Your task to perform on an android device: turn off location Image 0: 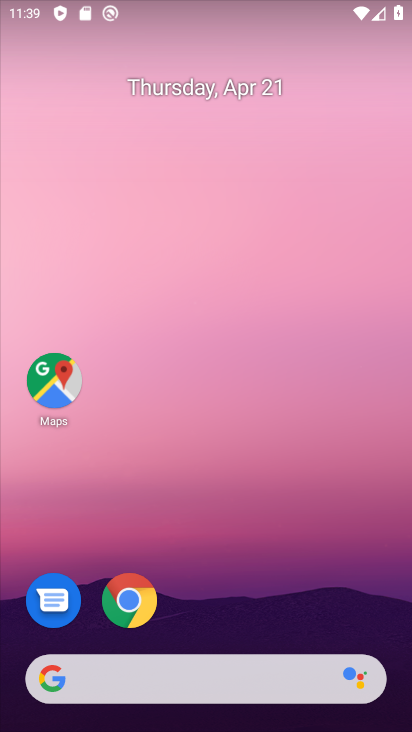
Step 0: drag from (190, 617) to (276, 32)
Your task to perform on an android device: turn off location Image 1: 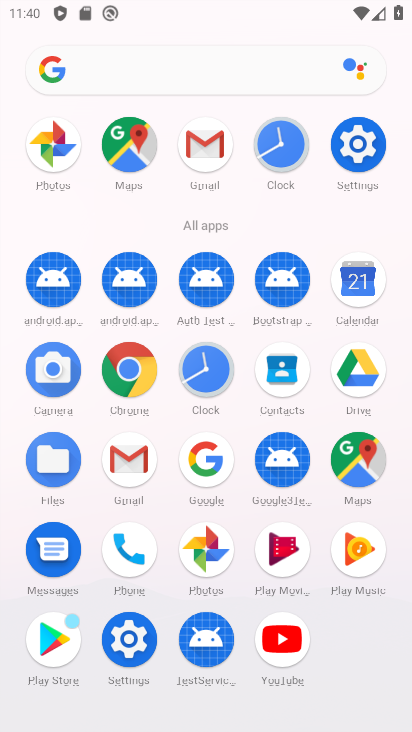
Step 1: click (134, 647)
Your task to perform on an android device: turn off location Image 2: 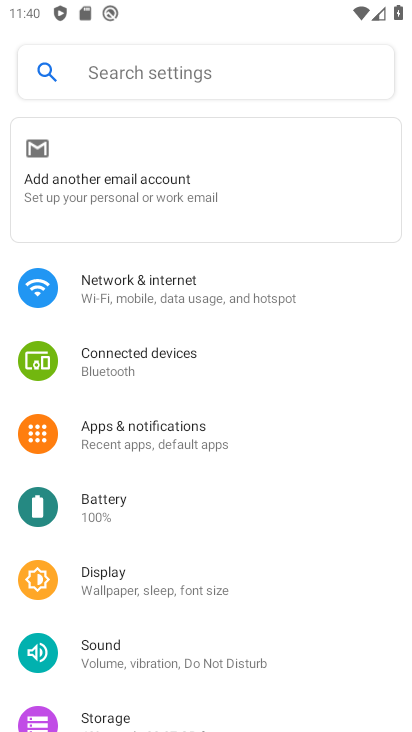
Step 2: drag from (183, 587) to (252, 182)
Your task to perform on an android device: turn off location Image 3: 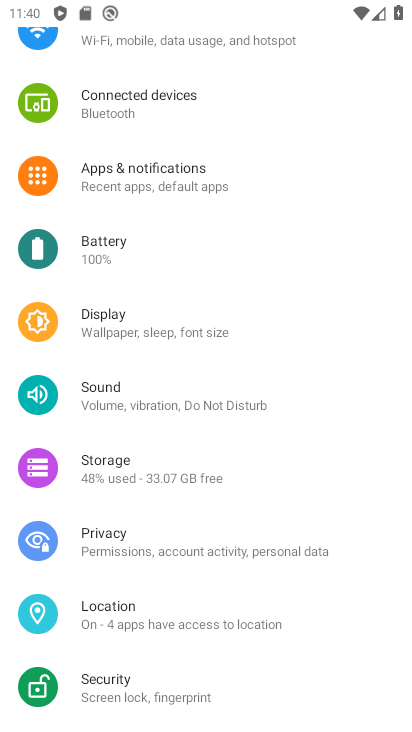
Step 3: drag from (213, 551) to (271, 276)
Your task to perform on an android device: turn off location Image 4: 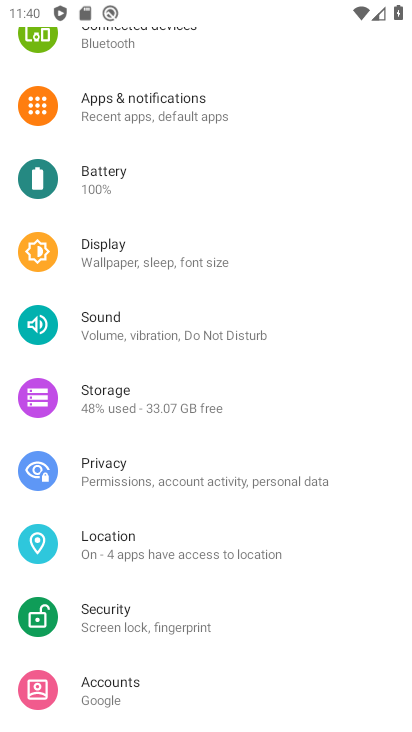
Step 4: click (156, 545)
Your task to perform on an android device: turn off location Image 5: 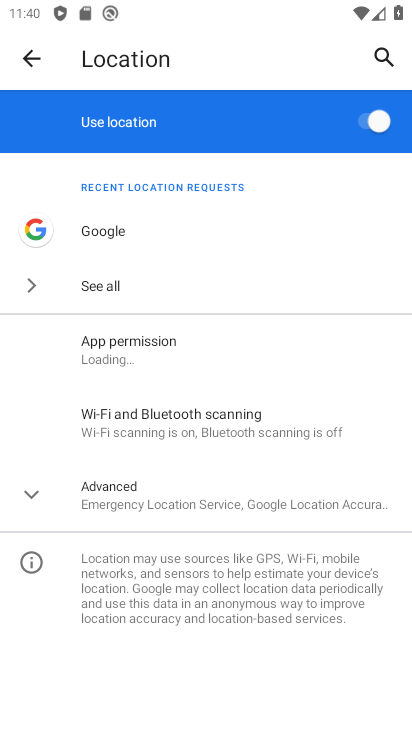
Step 5: click (354, 123)
Your task to perform on an android device: turn off location Image 6: 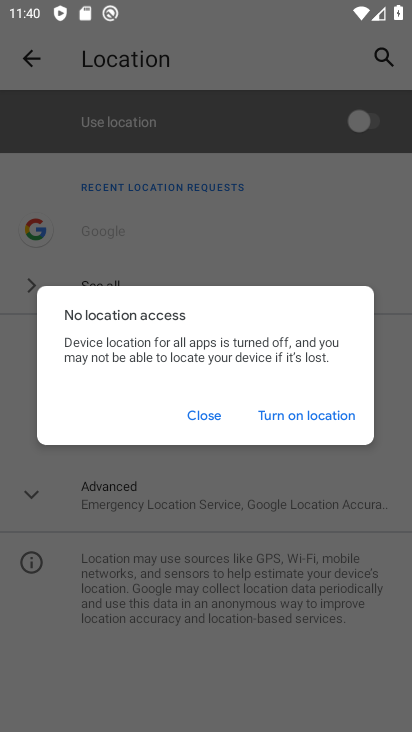
Step 6: click (207, 418)
Your task to perform on an android device: turn off location Image 7: 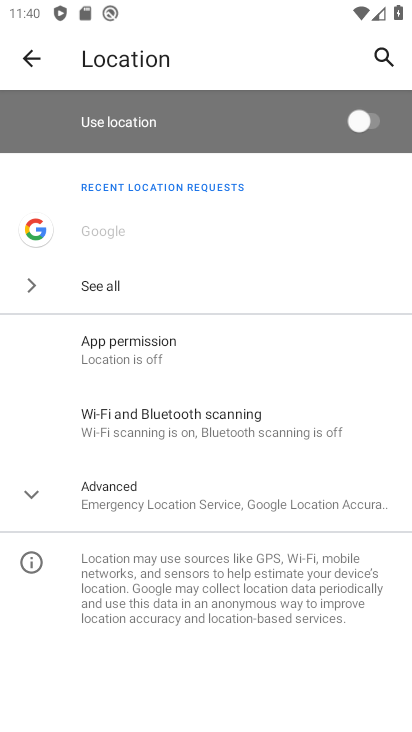
Step 7: task complete